Your task to perform on an android device: Open Youtube and go to "Your channel" Image 0: 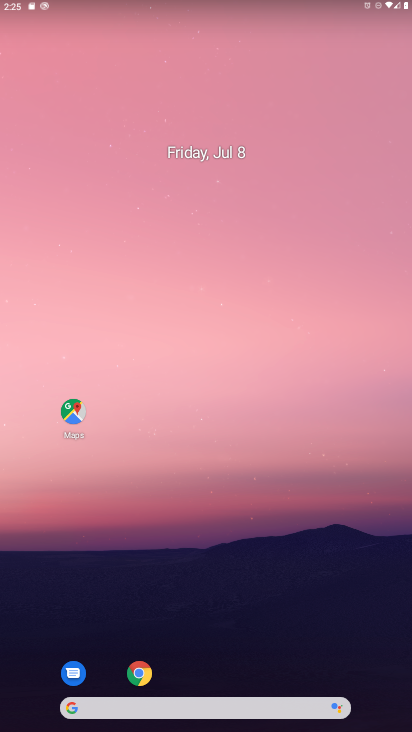
Step 0: drag from (376, 711) to (281, 200)
Your task to perform on an android device: Open Youtube and go to "Your channel" Image 1: 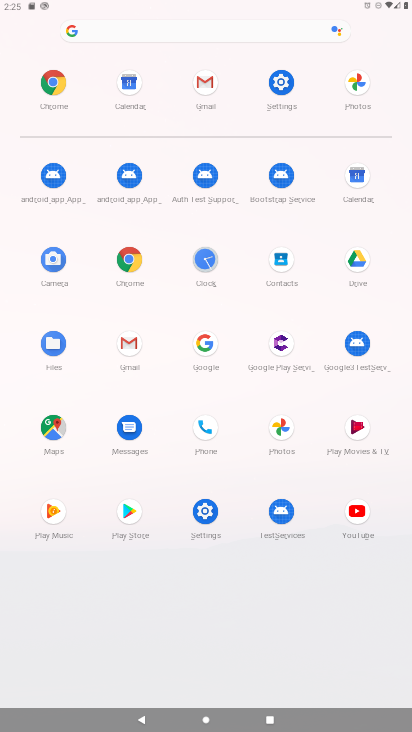
Step 1: click (356, 524)
Your task to perform on an android device: Open Youtube and go to "Your channel" Image 2: 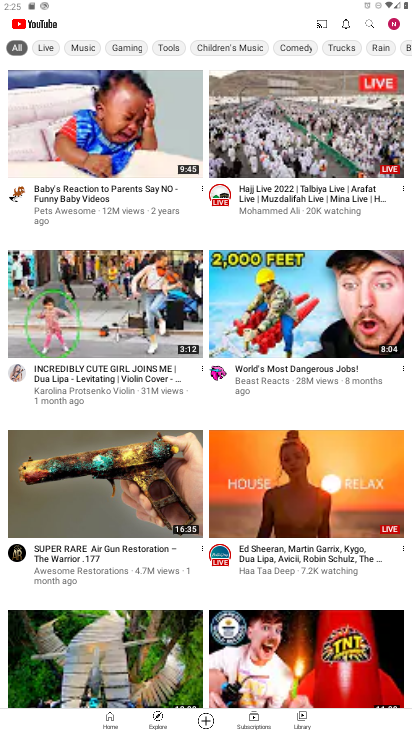
Step 2: click (391, 24)
Your task to perform on an android device: Open Youtube and go to "Your channel" Image 3: 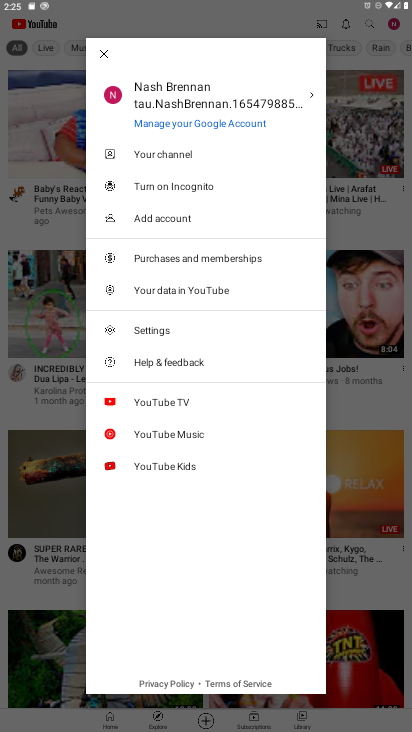
Step 3: click (165, 156)
Your task to perform on an android device: Open Youtube and go to "Your channel" Image 4: 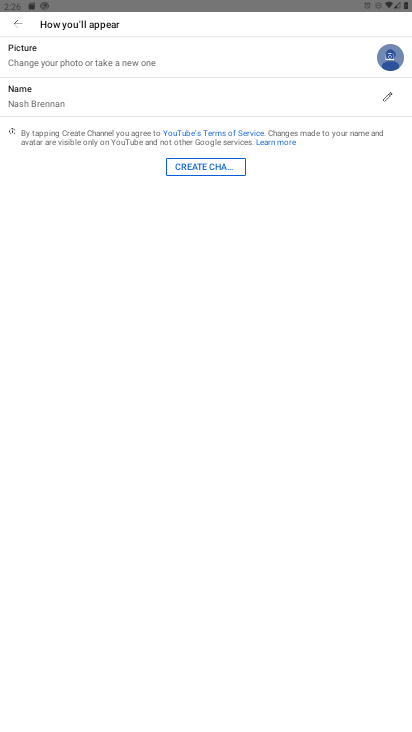
Step 4: task complete